Your task to perform on an android device: install app "Contacts" Image 0: 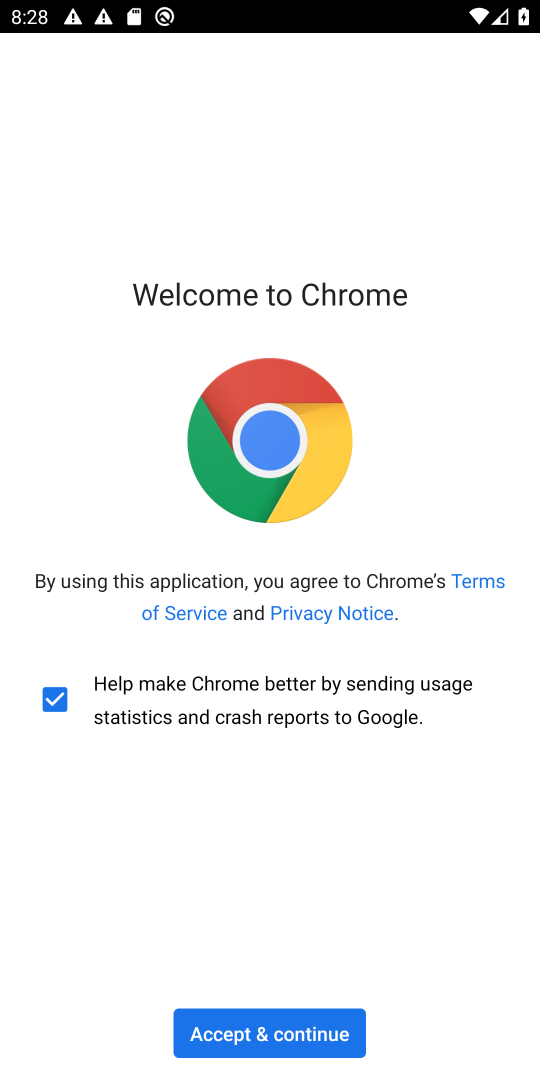
Step 0: press home button
Your task to perform on an android device: install app "Contacts" Image 1: 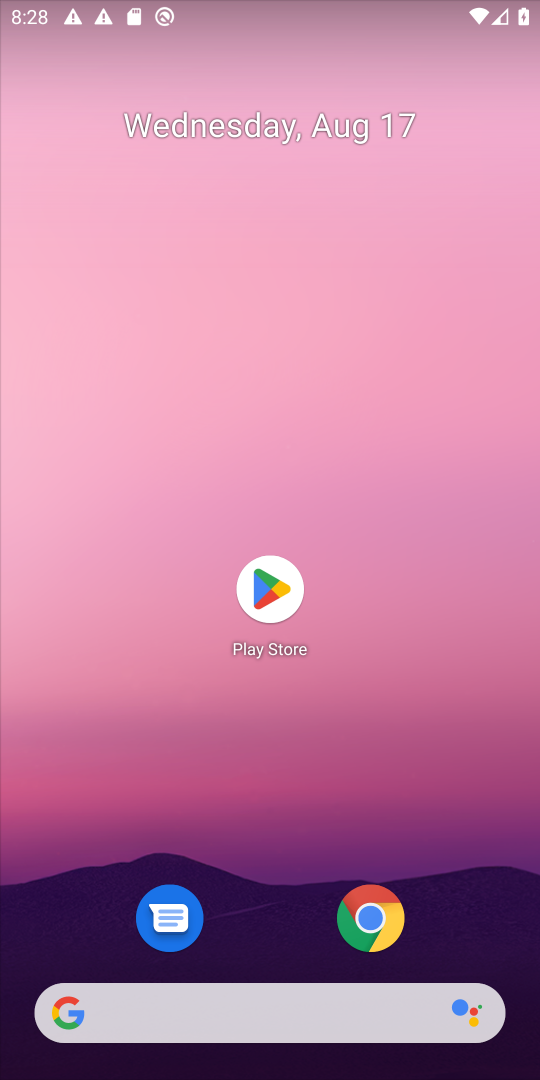
Step 1: drag from (237, 973) to (416, 154)
Your task to perform on an android device: install app "Contacts" Image 2: 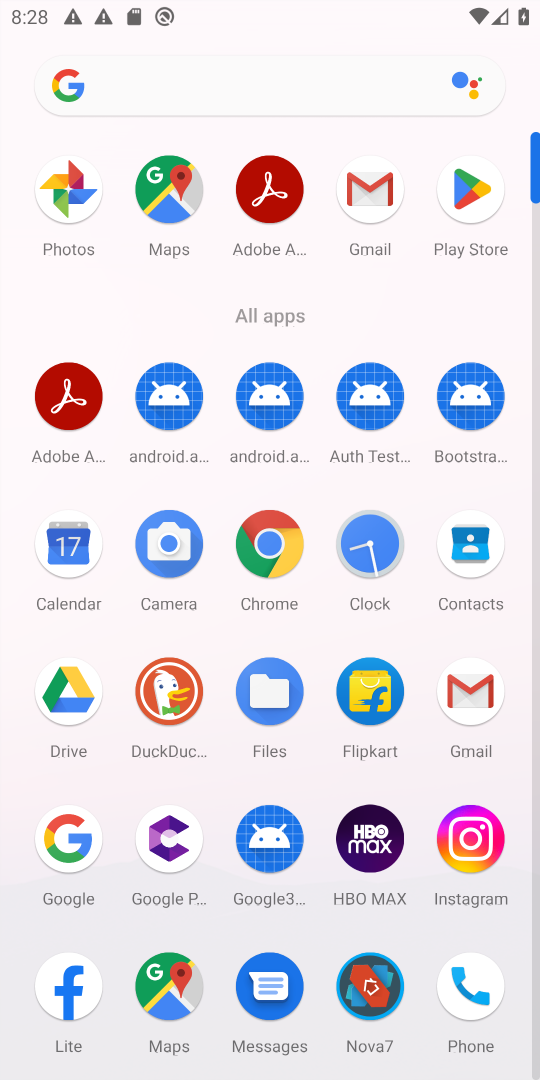
Step 2: press home button
Your task to perform on an android device: install app "Contacts" Image 3: 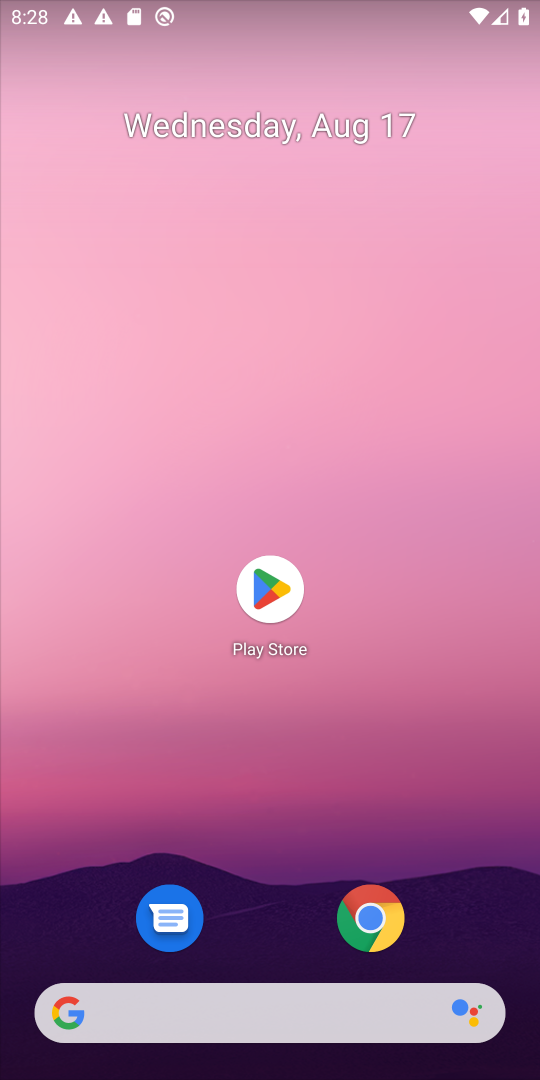
Step 3: click (274, 576)
Your task to perform on an android device: install app "Contacts" Image 4: 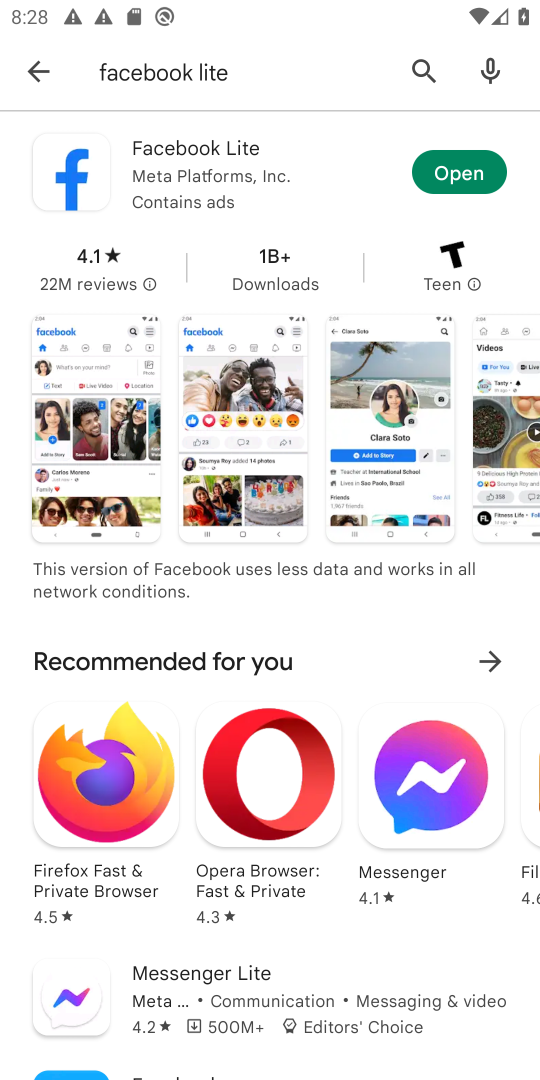
Step 4: click (415, 66)
Your task to perform on an android device: install app "Contacts" Image 5: 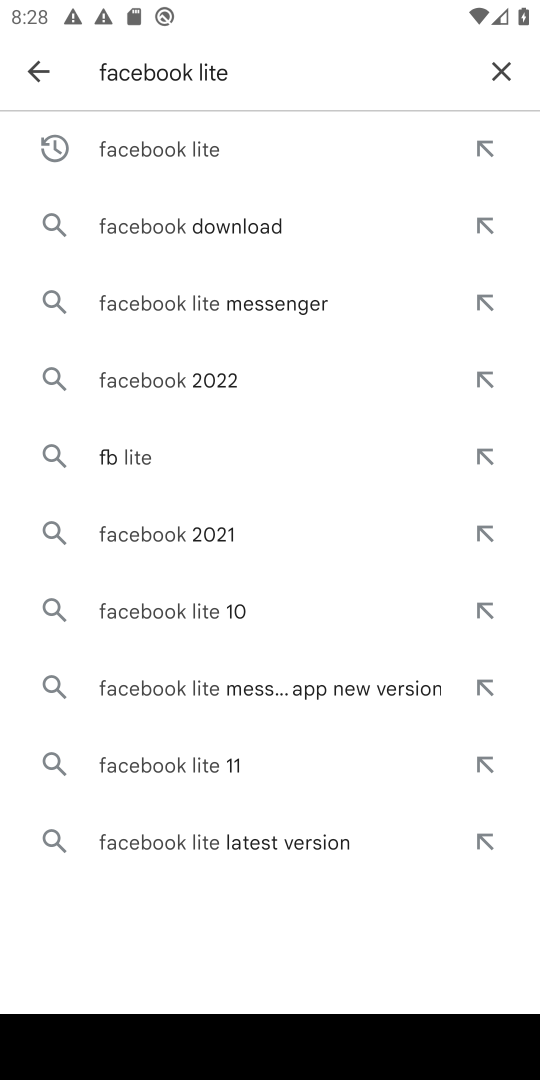
Step 5: click (496, 70)
Your task to perform on an android device: install app "Contacts" Image 6: 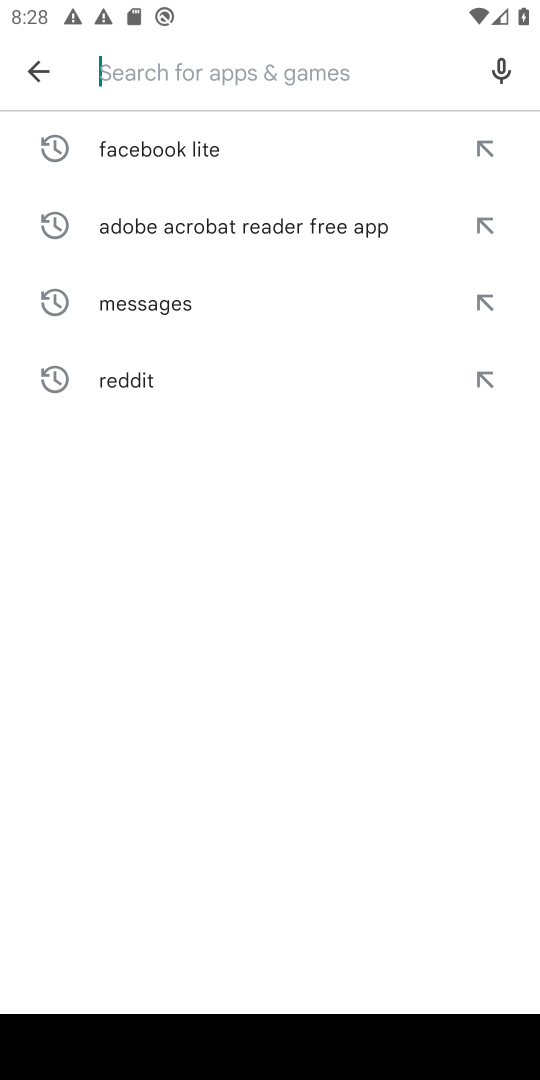
Step 6: type "Contacts"
Your task to perform on an android device: install app "Contacts" Image 7: 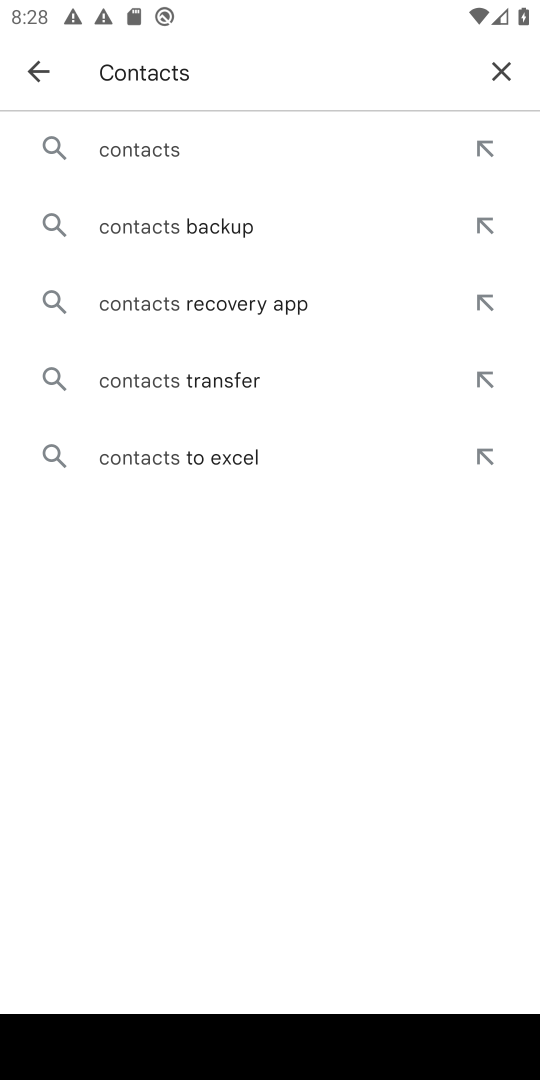
Step 7: click (138, 151)
Your task to perform on an android device: install app "Contacts" Image 8: 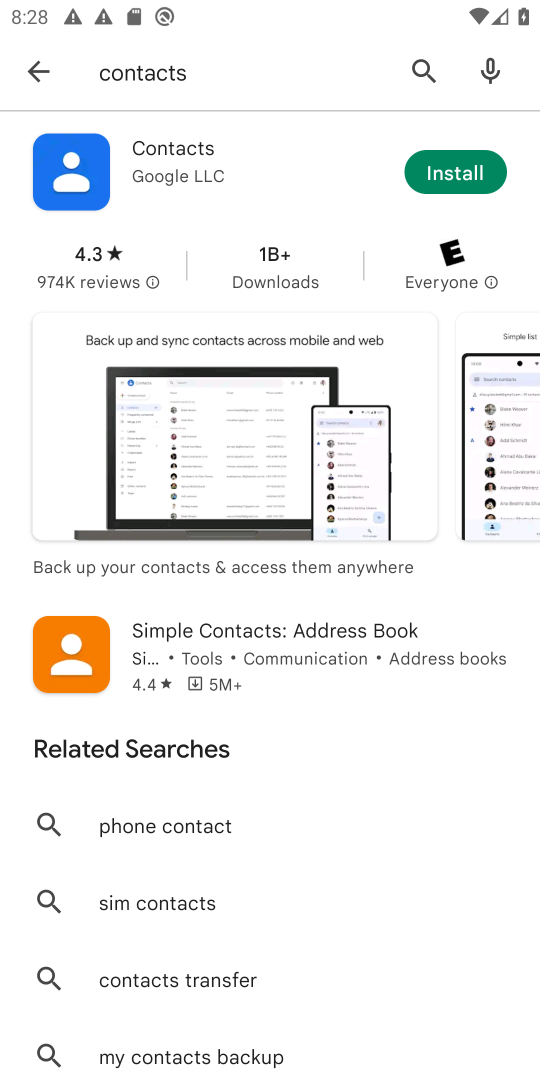
Step 8: click (454, 179)
Your task to perform on an android device: install app "Contacts" Image 9: 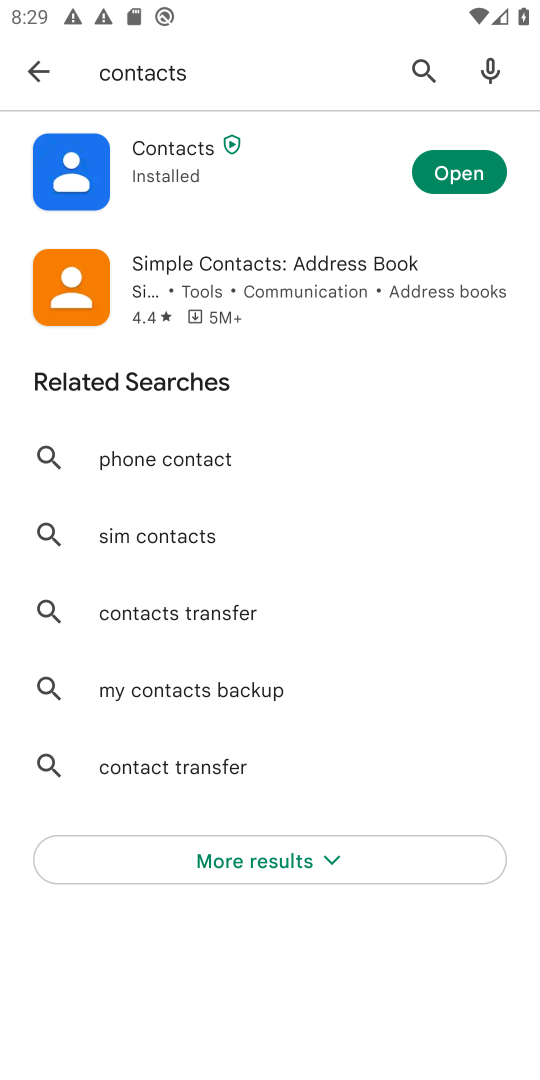
Step 9: task complete